Your task to perform on an android device: Open Wikipedia Image 0: 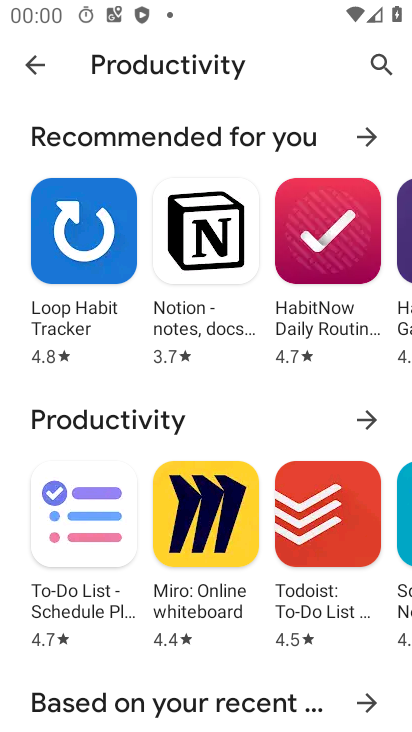
Step 0: press home button
Your task to perform on an android device: Open Wikipedia Image 1: 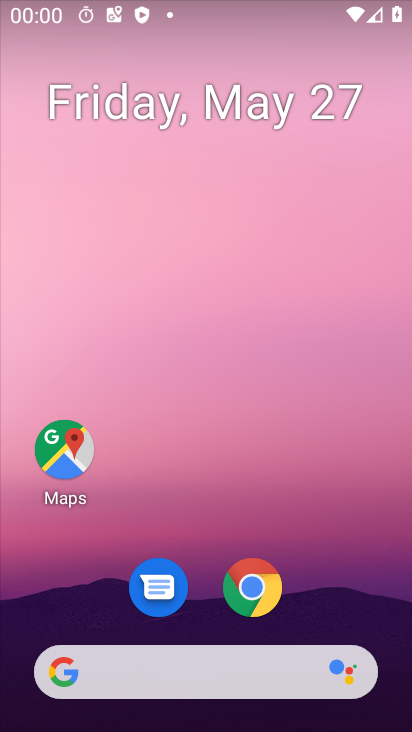
Step 1: click (250, 583)
Your task to perform on an android device: Open Wikipedia Image 2: 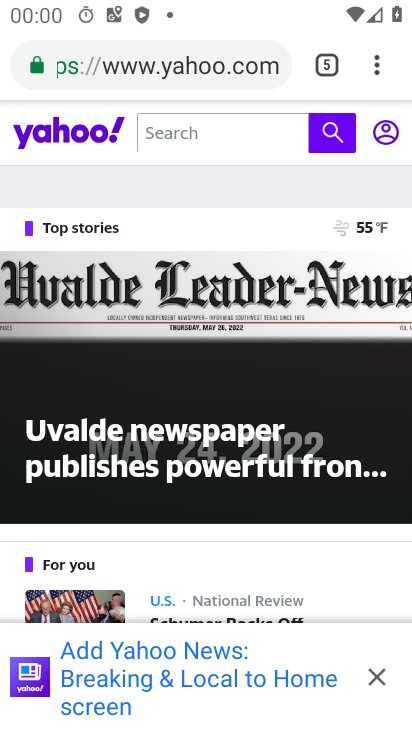
Step 2: click (136, 70)
Your task to perform on an android device: Open Wikipedia Image 3: 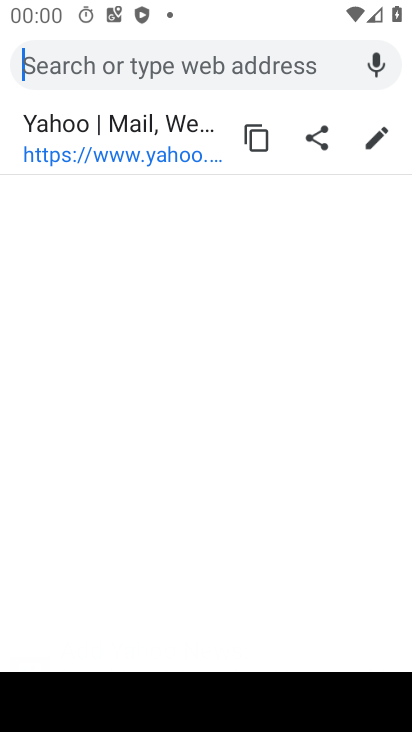
Step 3: type "wikipedia"
Your task to perform on an android device: Open Wikipedia Image 4: 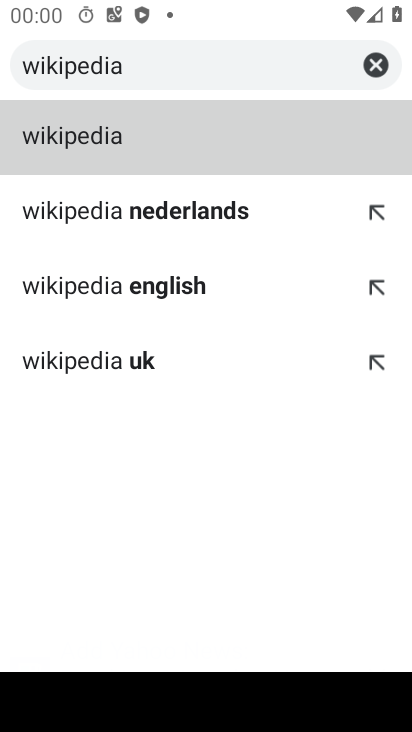
Step 4: click (64, 140)
Your task to perform on an android device: Open Wikipedia Image 5: 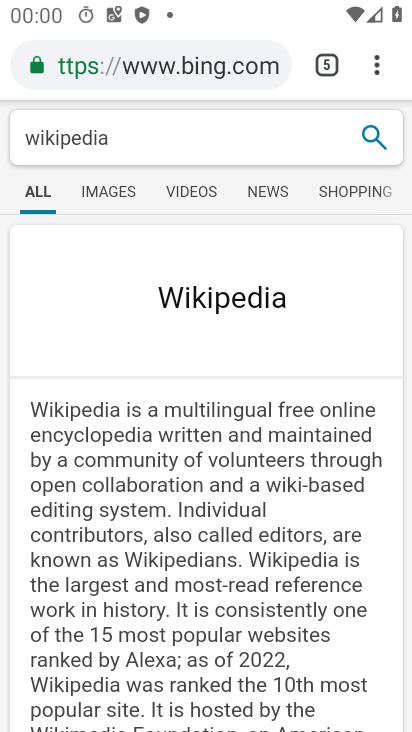
Step 5: drag from (183, 430) to (201, 219)
Your task to perform on an android device: Open Wikipedia Image 6: 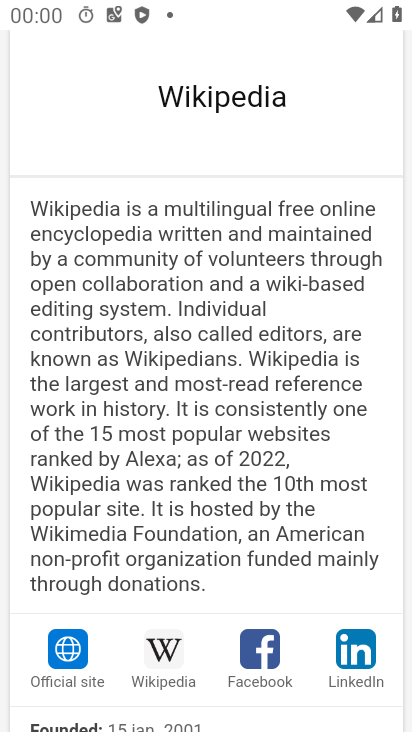
Step 6: drag from (232, 268) to (201, 564)
Your task to perform on an android device: Open Wikipedia Image 7: 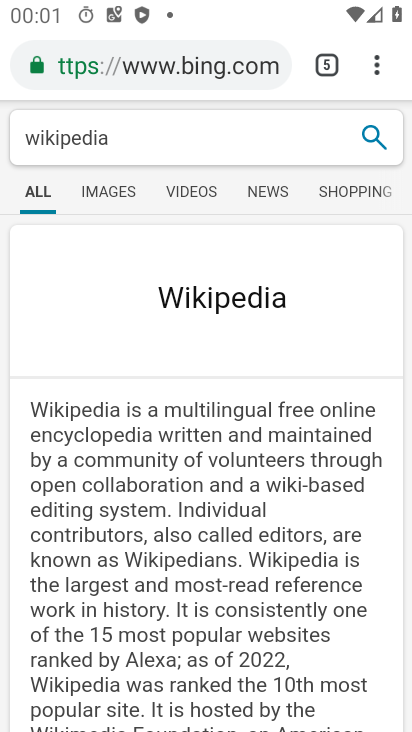
Step 7: drag from (189, 450) to (191, 138)
Your task to perform on an android device: Open Wikipedia Image 8: 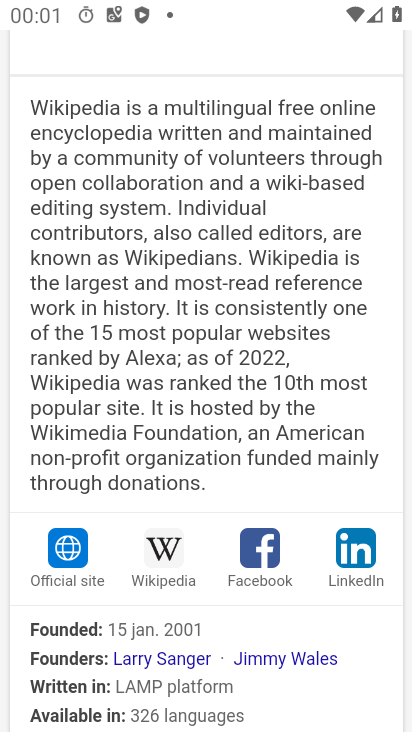
Step 8: click (163, 553)
Your task to perform on an android device: Open Wikipedia Image 9: 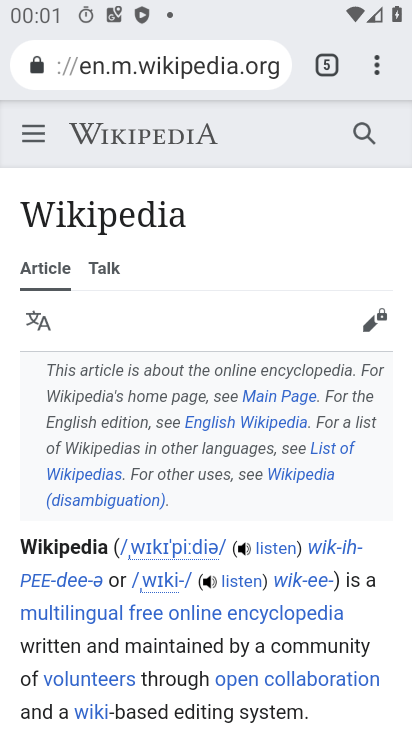
Step 9: task complete